Your task to perform on an android device: toggle notifications settings in the gmail app Image 0: 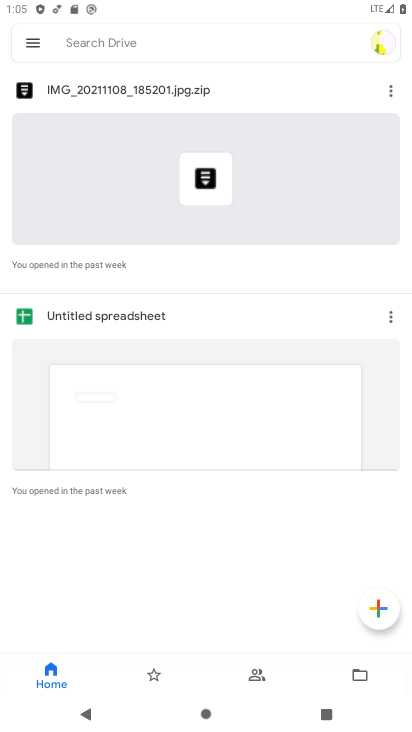
Step 0: press home button
Your task to perform on an android device: toggle notifications settings in the gmail app Image 1: 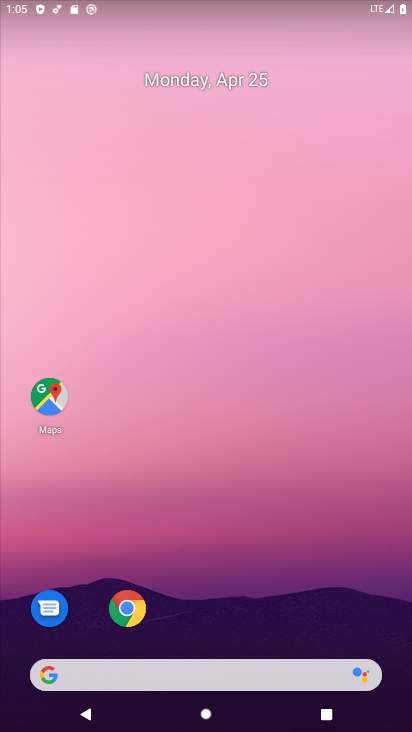
Step 1: drag from (275, 578) to (321, 87)
Your task to perform on an android device: toggle notifications settings in the gmail app Image 2: 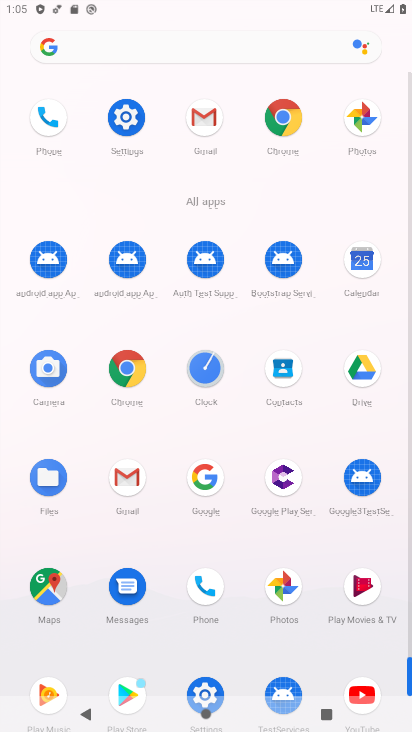
Step 2: click (202, 124)
Your task to perform on an android device: toggle notifications settings in the gmail app Image 3: 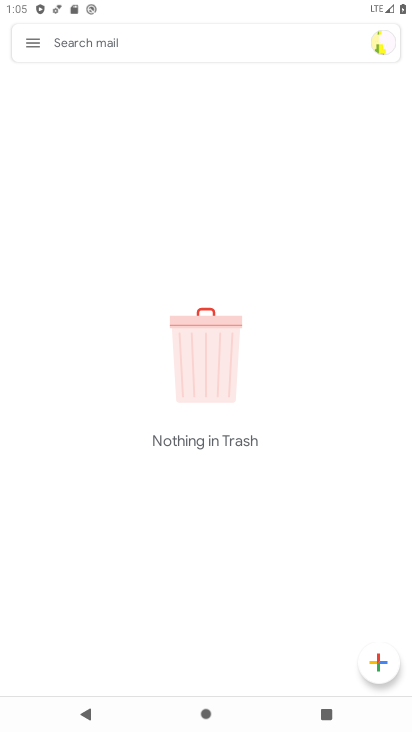
Step 3: click (34, 50)
Your task to perform on an android device: toggle notifications settings in the gmail app Image 4: 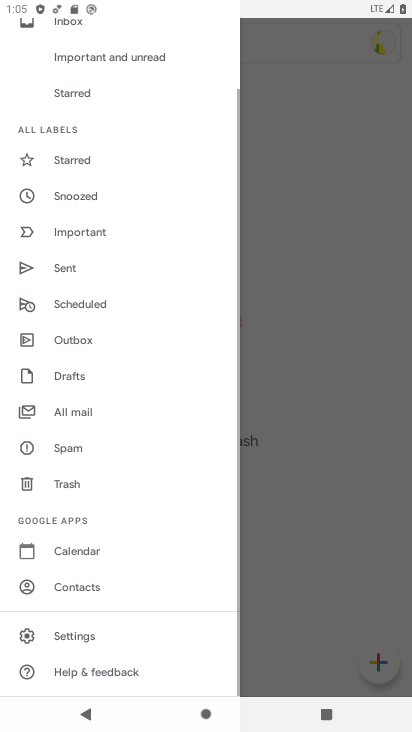
Step 4: click (120, 632)
Your task to perform on an android device: toggle notifications settings in the gmail app Image 5: 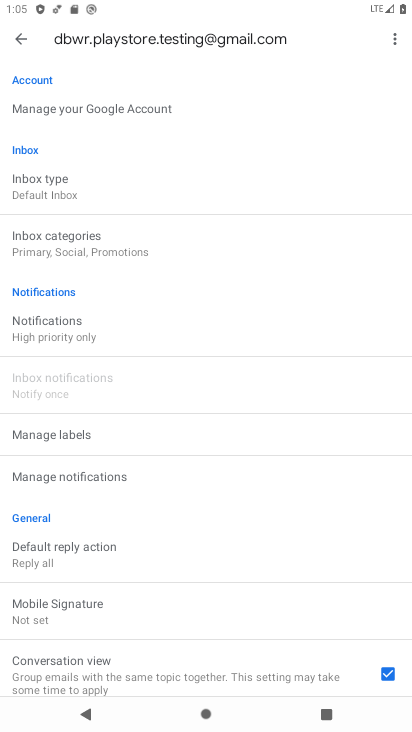
Step 5: click (90, 322)
Your task to perform on an android device: toggle notifications settings in the gmail app Image 6: 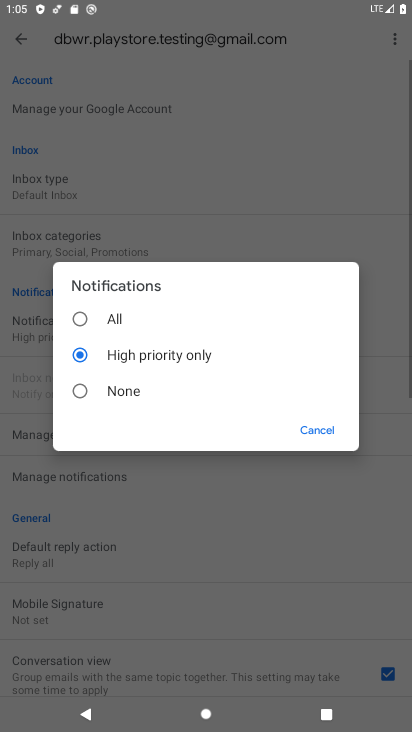
Step 6: click (114, 316)
Your task to perform on an android device: toggle notifications settings in the gmail app Image 7: 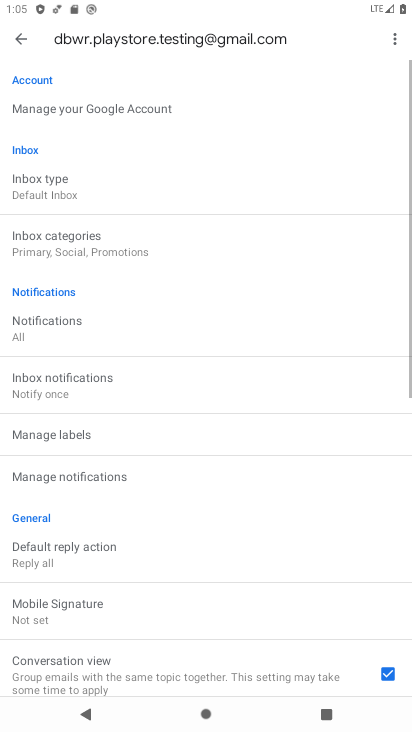
Step 7: task complete